Your task to perform on an android device: Find coffee shops on Maps Image 0: 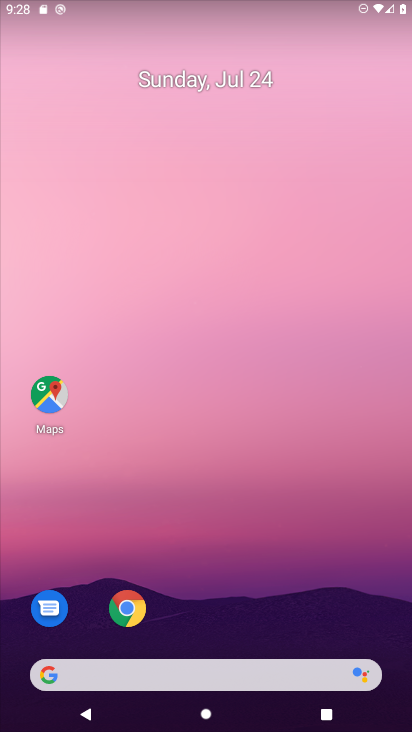
Step 0: drag from (200, 586) to (203, 170)
Your task to perform on an android device: Find coffee shops on Maps Image 1: 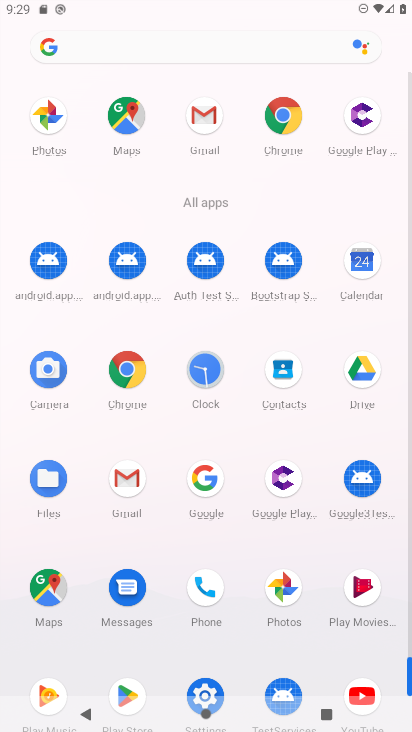
Step 1: drag from (240, 656) to (249, 232)
Your task to perform on an android device: Find coffee shops on Maps Image 2: 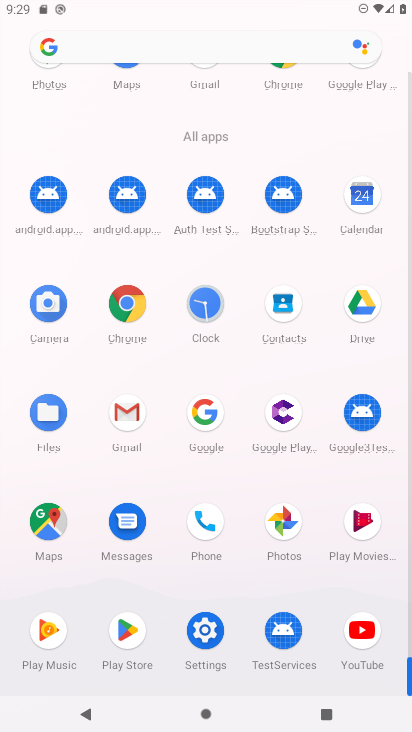
Step 2: click (40, 514)
Your task to perform on an android device: Find coffee shops on Maps Image 3: 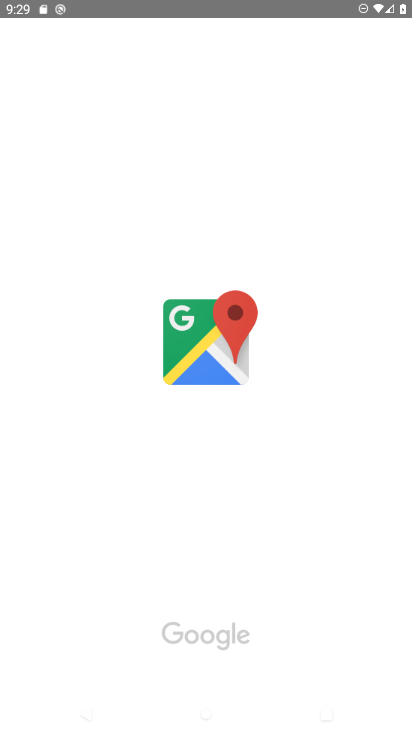
Step 3: drag from (195, 594) to (200, 427)
Your task to perform on an android device: Find coffee shops on Maps Image 4: 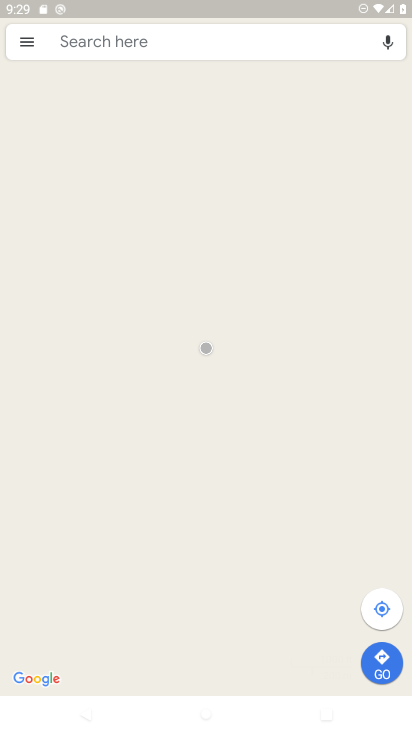
Step 4: drag from (232, 575) to (263, 381)
Your task to perform on an android device: Find coffee shops on Maps Image 5: 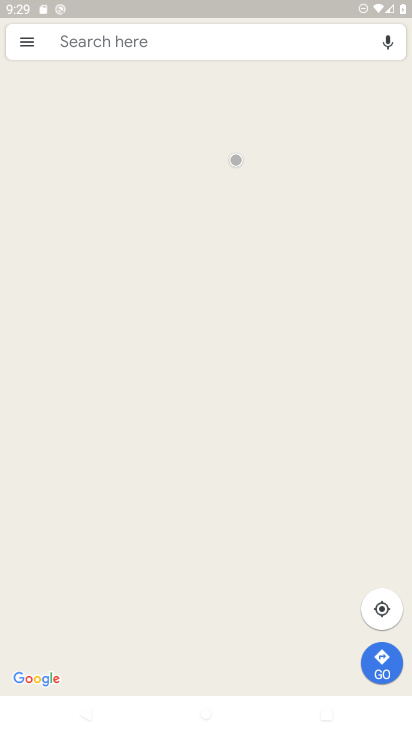
Step 5: click (134, 45)
Your task to perform on an android device: Find coffee shops on Maps Image 6: 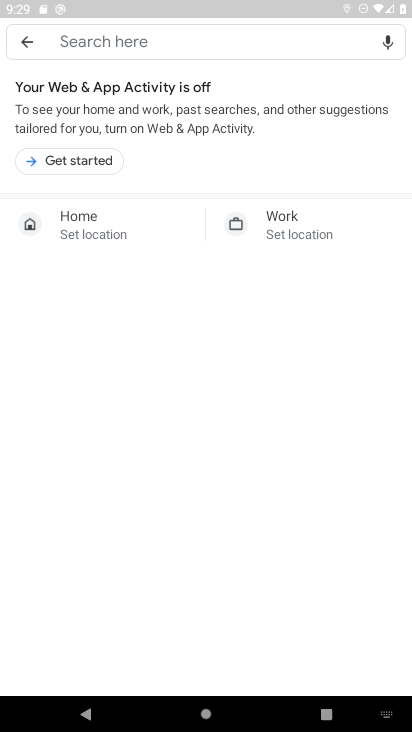
Step 6: click (275, 434)
Your task to perform on an android device: Find coffee shops on Maps Image 7: 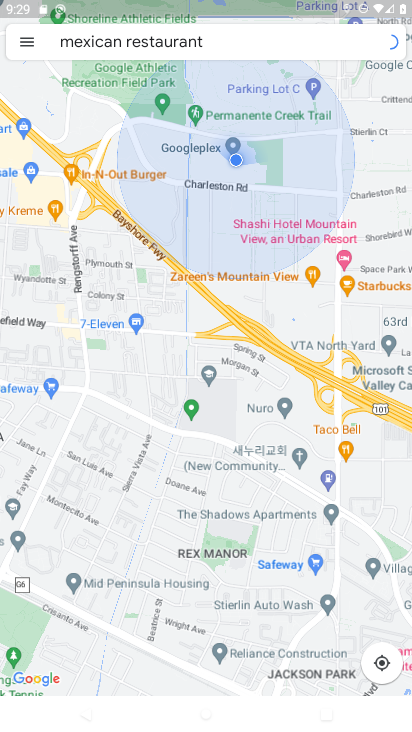
Step 7: click (312, 52)
Your task to perform on an android device: Find coffee shops on Maps Image 8: 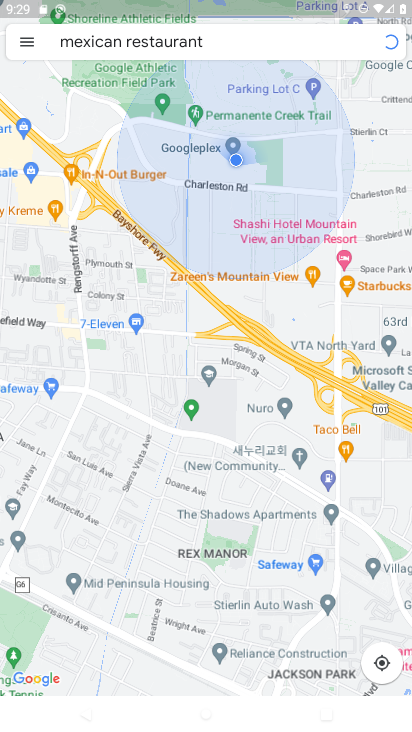
Step 8: click (244, 41)
Your task to perform on an android device: Find coffee shops on Maps Image 9: 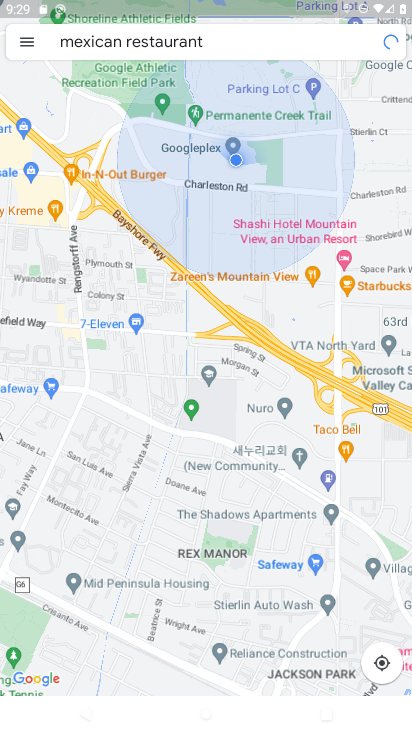
Step 9: click (244, 43)
Your task to perform on an android device: Find coffee shops on Maps Image 10: 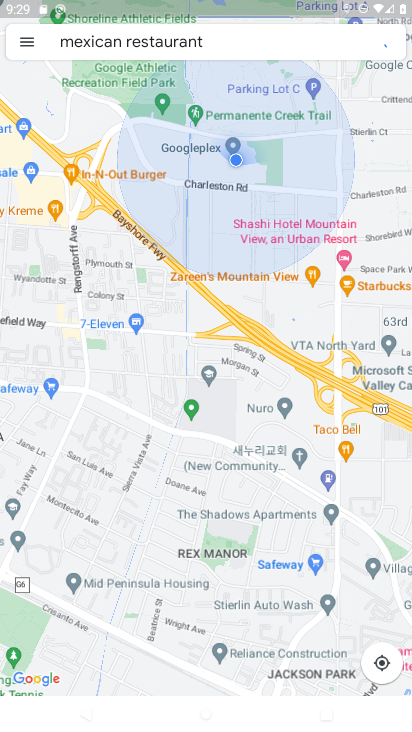
Step 10: click (245, 43)
Your task to perform on an android device: Find coffee shops on Maps Image 11: 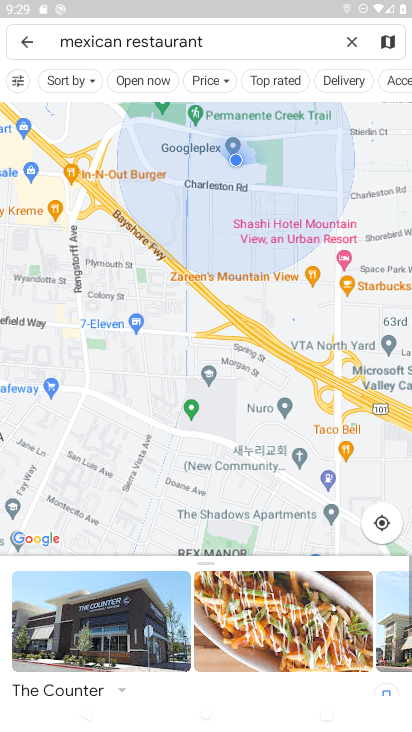
Step 11: click (350, 53)
Your task to perform on an android device: Find coffee shops on Maps Image 12: 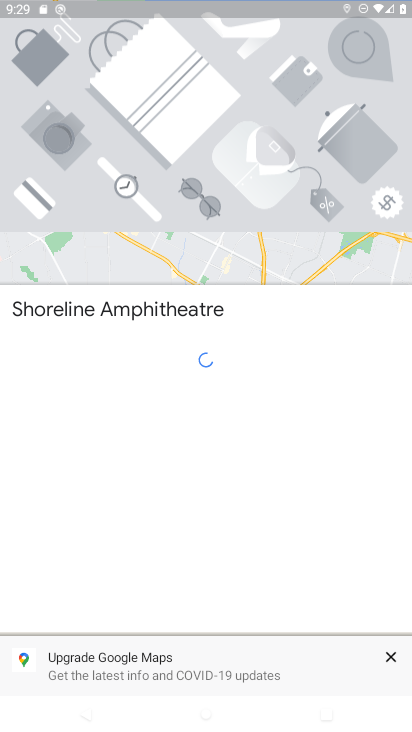
Step 12: click (353, 39)
Your task to perform on an android device: Find coffee shops on Maps Image 13: 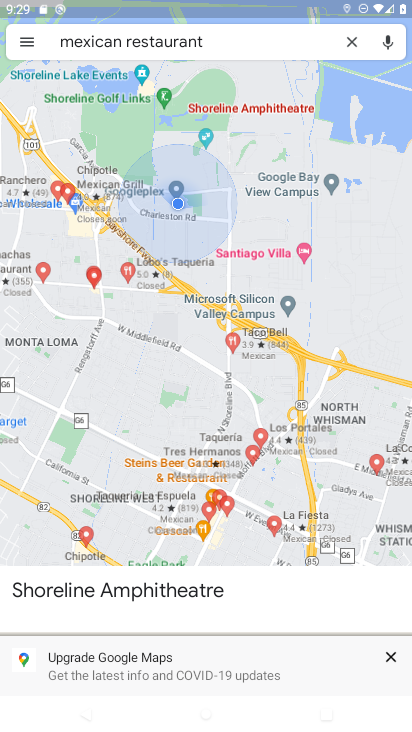
Step 13: click (350, 38)
Your task to perform on an android device: Find coffee shops on Maps Image 14: 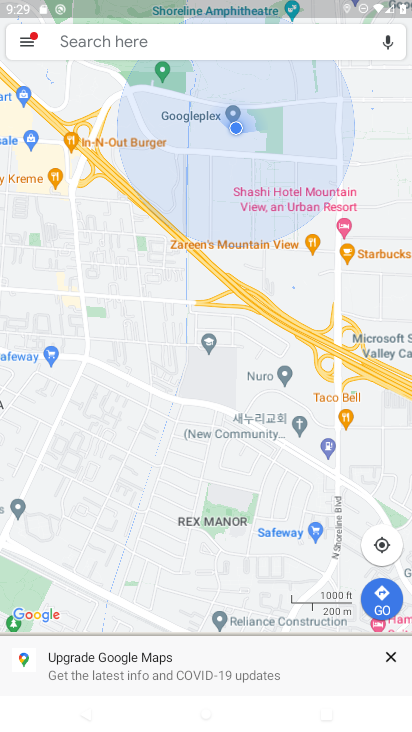
Step 14: click (131, 36)
Your task to perform on an android device: Find coffee shops on Maps Image 15: 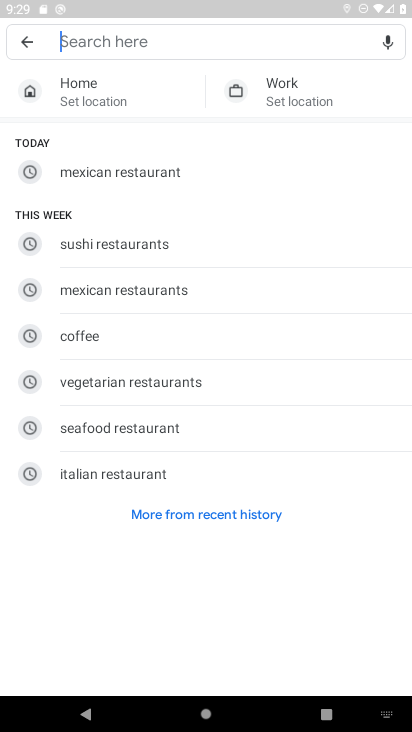
Step 15: type "coffee"
Your task to perform on an android device: Find coffee shops on Maps Image 16: 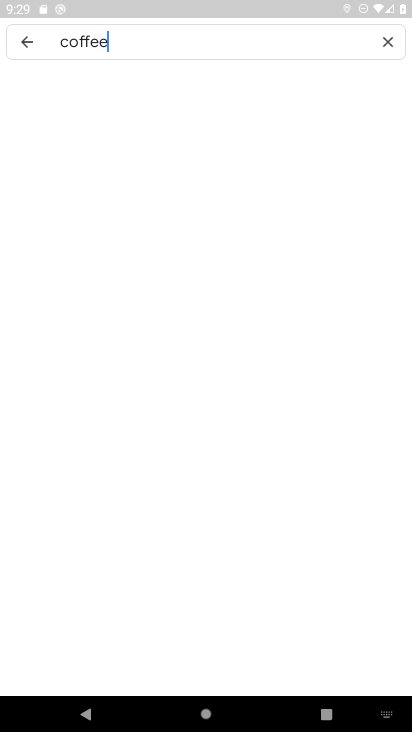
Step 16: type ""
Your task to perform on an android device: Find coffee shops on Maps Image 17: 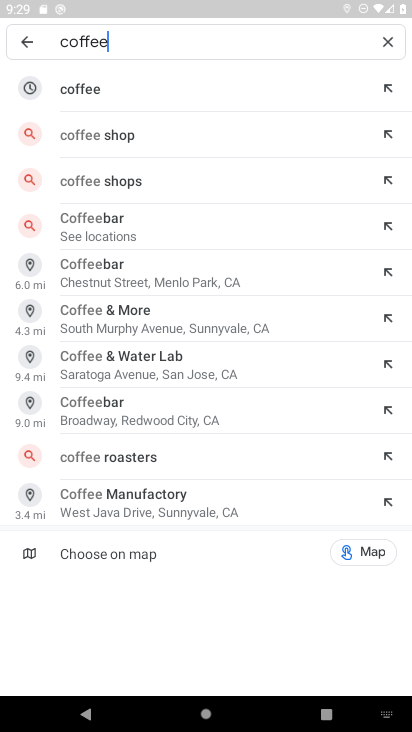
Step 17: click (81, 92)
Your task to perform on an android device: Find coffee shops on Maps Image 18: 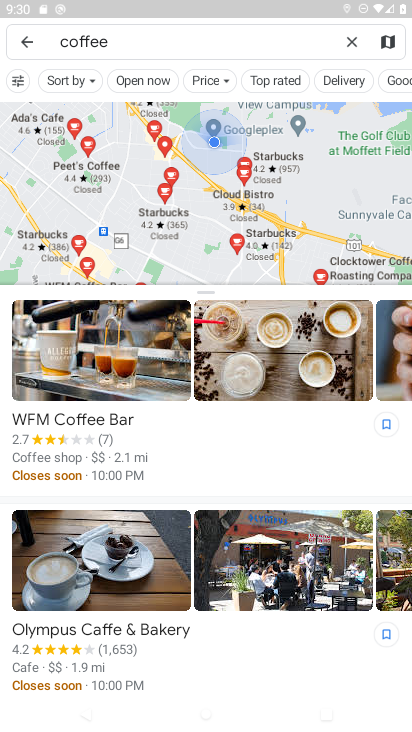
Step 18: task complete